Your task to perform on an android device: What's the weather going to be tomorrow? Image 0: 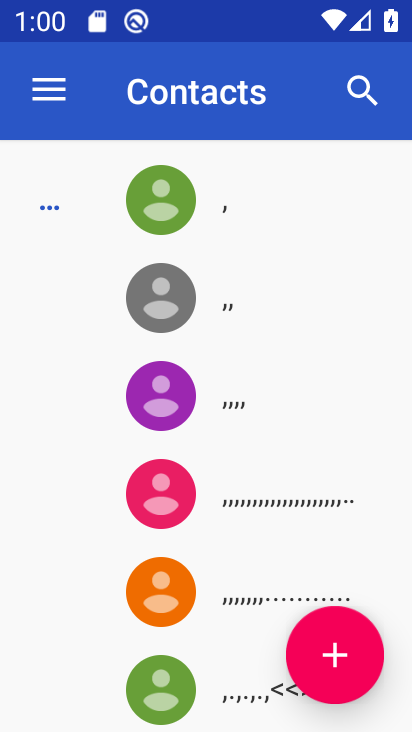
Step 0: press home button
Your task to perform on an android device: What's the weather going to be tomorrow? Image 1: 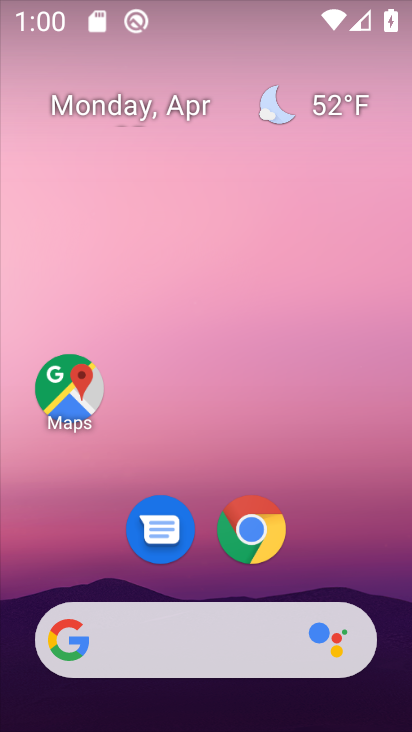
Step 1: click (356, 218)
Your task to perform on an android device: What's the weather going to be tomorrow? Image 2: 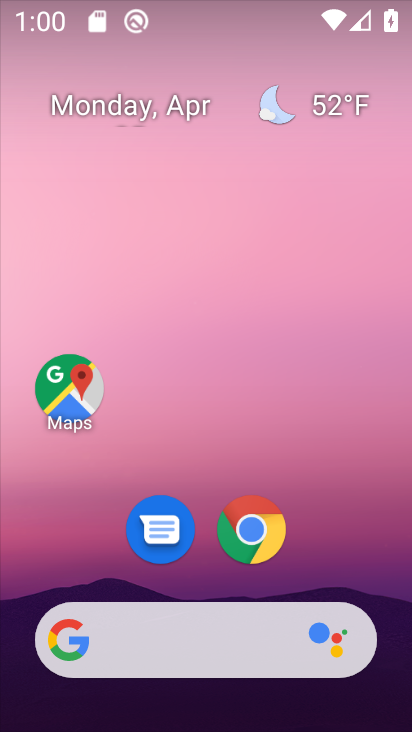
Step 2: click (366, 149)
Your task to perform on an android device: What's the weather going to be tomorrow? Image 3: 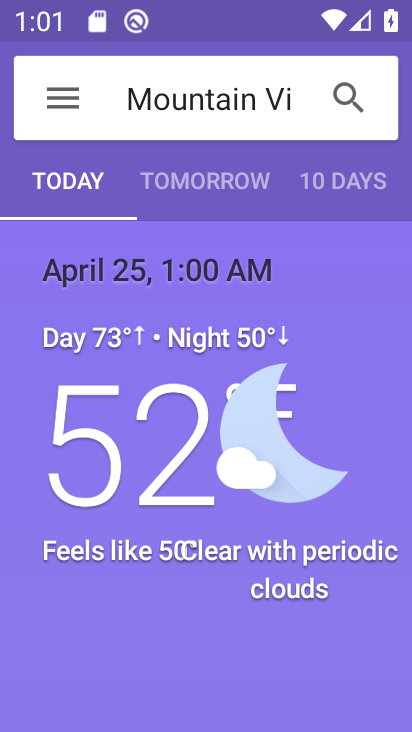
Step 3: task complete